Your task to perform on an android device: open chrome privacy settings Image 0: 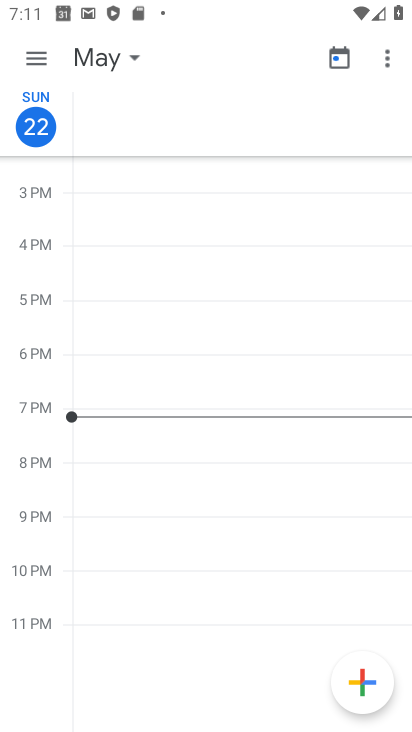
Step 0: press home button
Your task to perform on an android device: open chrome privacy settings Image 1: 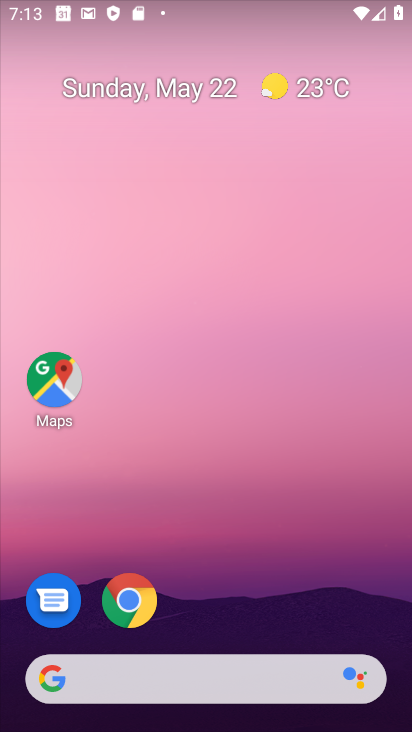
Step 1: drag from (354, 588) to (317, 0)
Your task to perform on an android device: open chrome privacy settings Image 2: 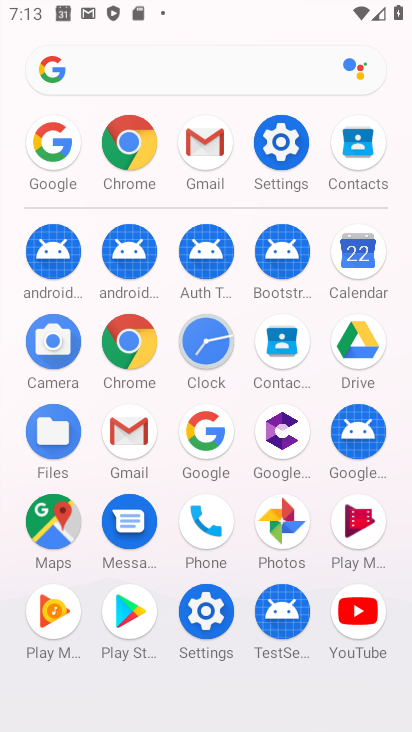
Step 2: click (133, 170)
Your task to perform on an android device: open chrome privacy settings Image 3: 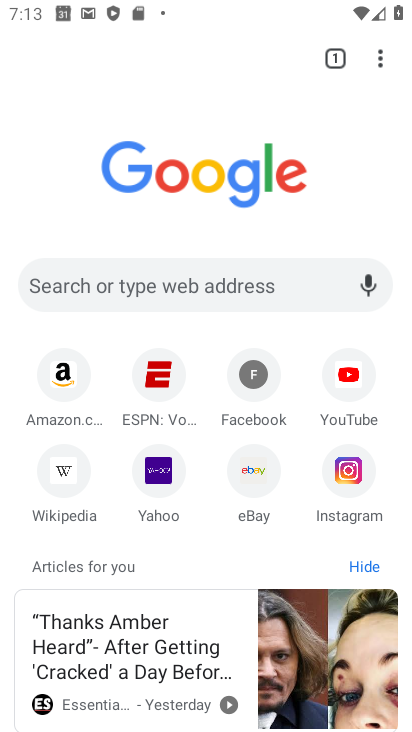
Step 3: click (378, 44)
Your task to perform on an android device: open chrome privacy settings Image 4: 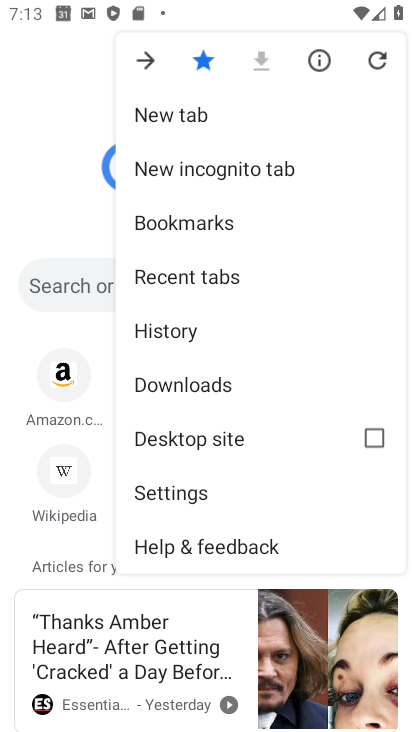
Step 4: click (206, 484)
Your task to perform on an android device: open chrome privacy settings Image 5: 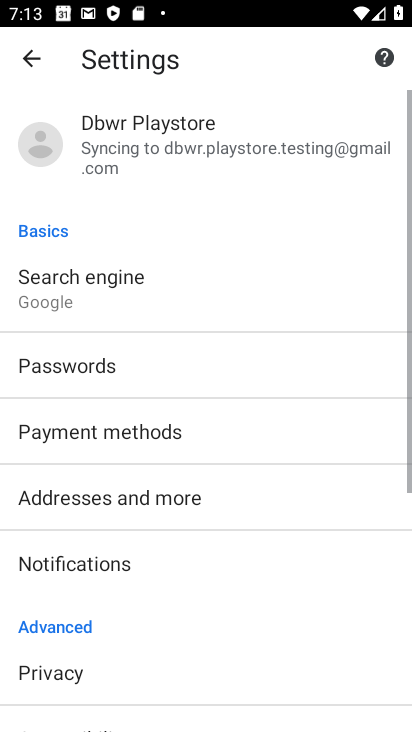
Step 5: click (77, 673)
Your task to perform on an android device: open chrome privacy settings Image 6: 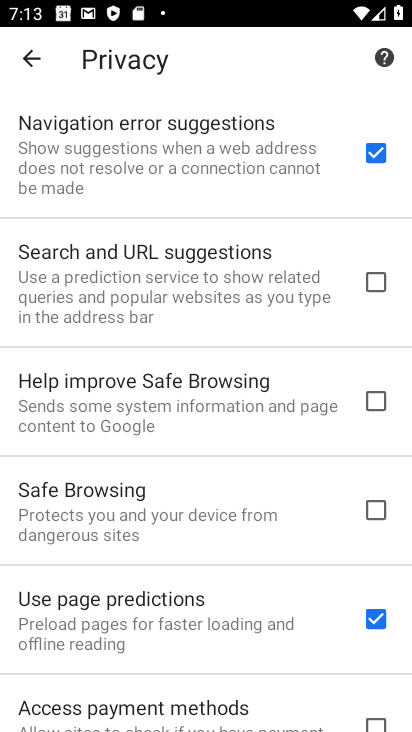
Step 6: task complete